Your task to perform on an android device: Clear all items from cart on target.com. Search for "alienware aurora" on target.com, select the first entry, add it to the cart, then select checkout. Image 0: 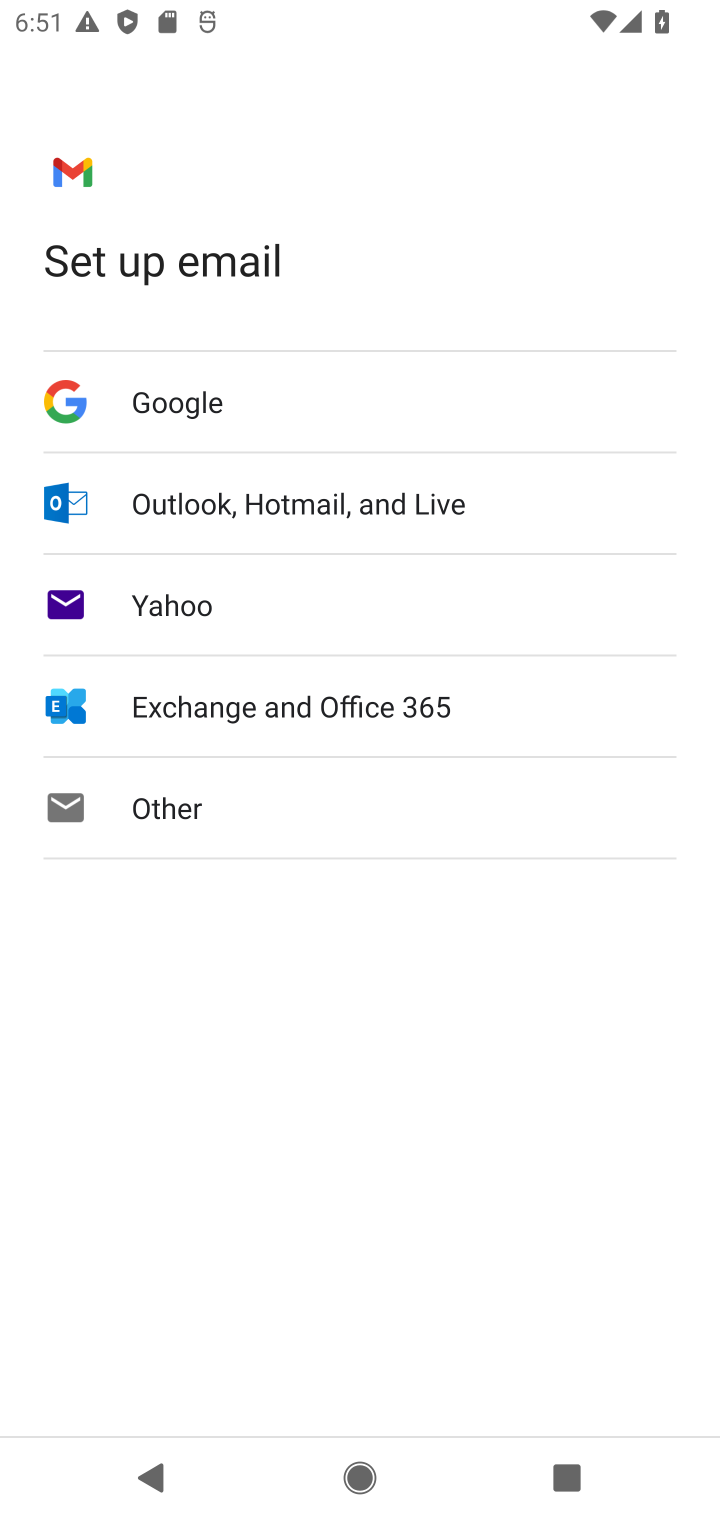
Step 0: press home button
Your task to perform on an android device: Clear all items from cart on target.com. Search for "alienware aurora" on target.com, select the first entry, add it to the cart, then select checkout. Image 1: 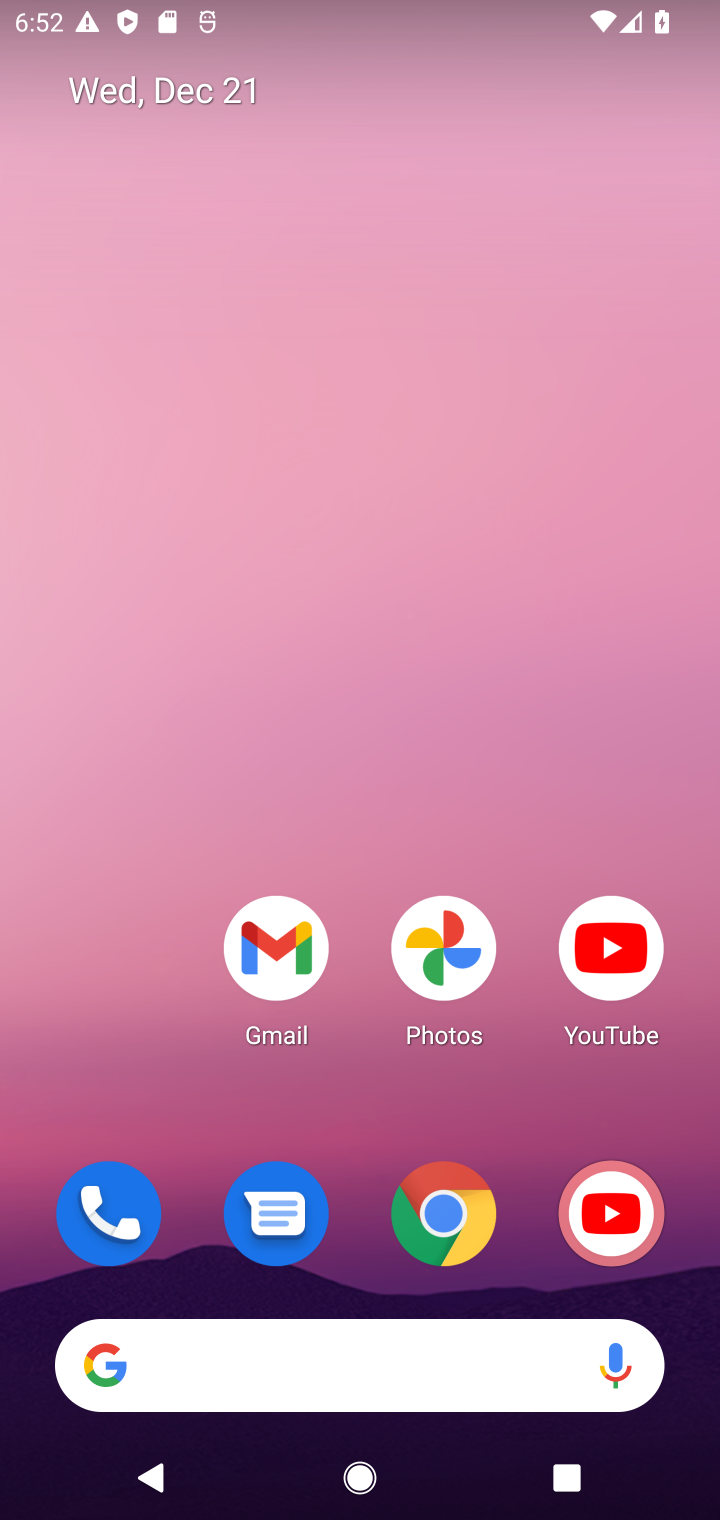
Step 1: click (447, 1242)
Your task to perform on an android device: Clear all items from cart on target.com. Search for "alienware aurora" on target.com, select the first entry, add it to the cart, then select checkout. Image 2: 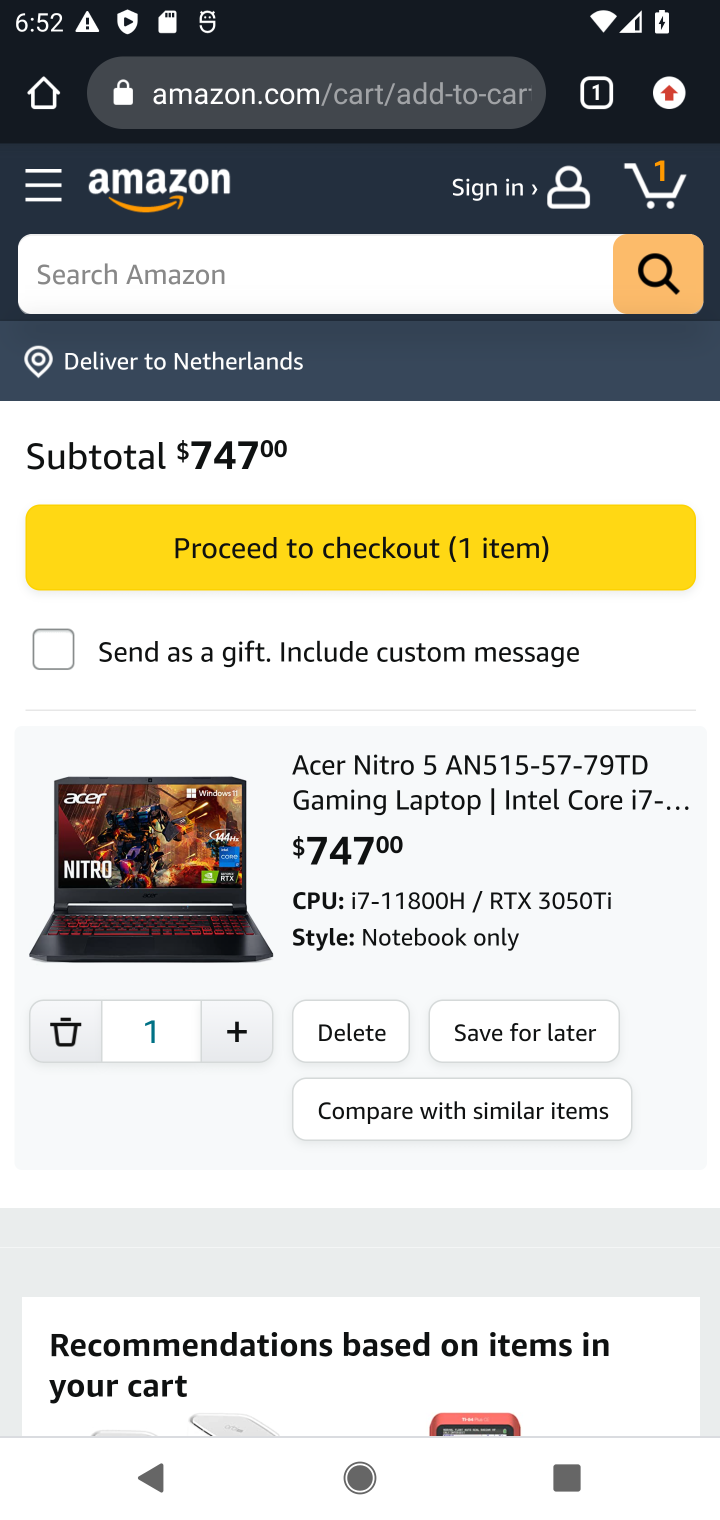
Step 2: click (380, 288)
Your task to perform on an android device: Clear all items from cart on target.com. Search for "alienware aurora" on target.com, select the first entry, add it to the cart, then select checkout. Image 3: 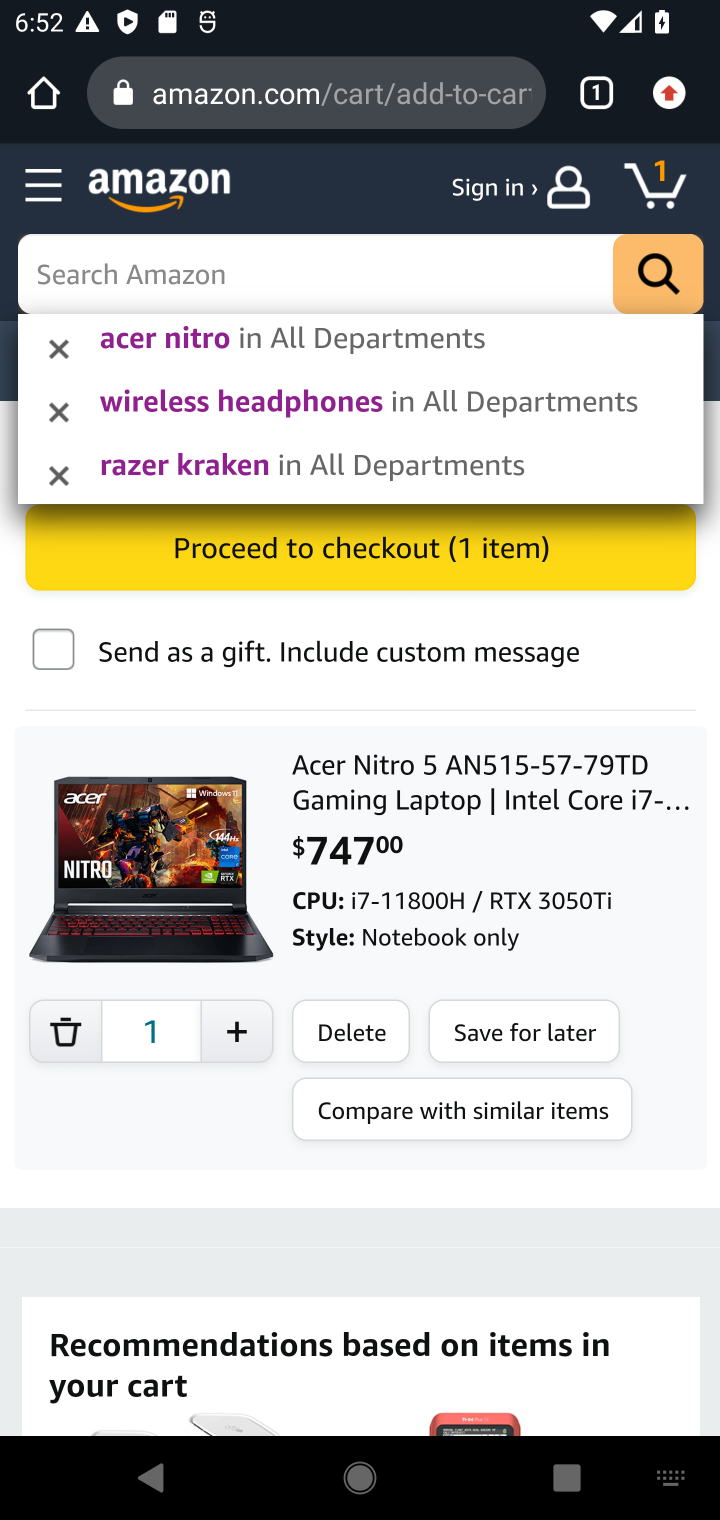
Step 3: type "target"
Your task to perform on an android device: Clear all items from cart on target.com. Search for "alienware aurora" on target.com, select the first entry, add it to the cart, then select checkout. Image 4: 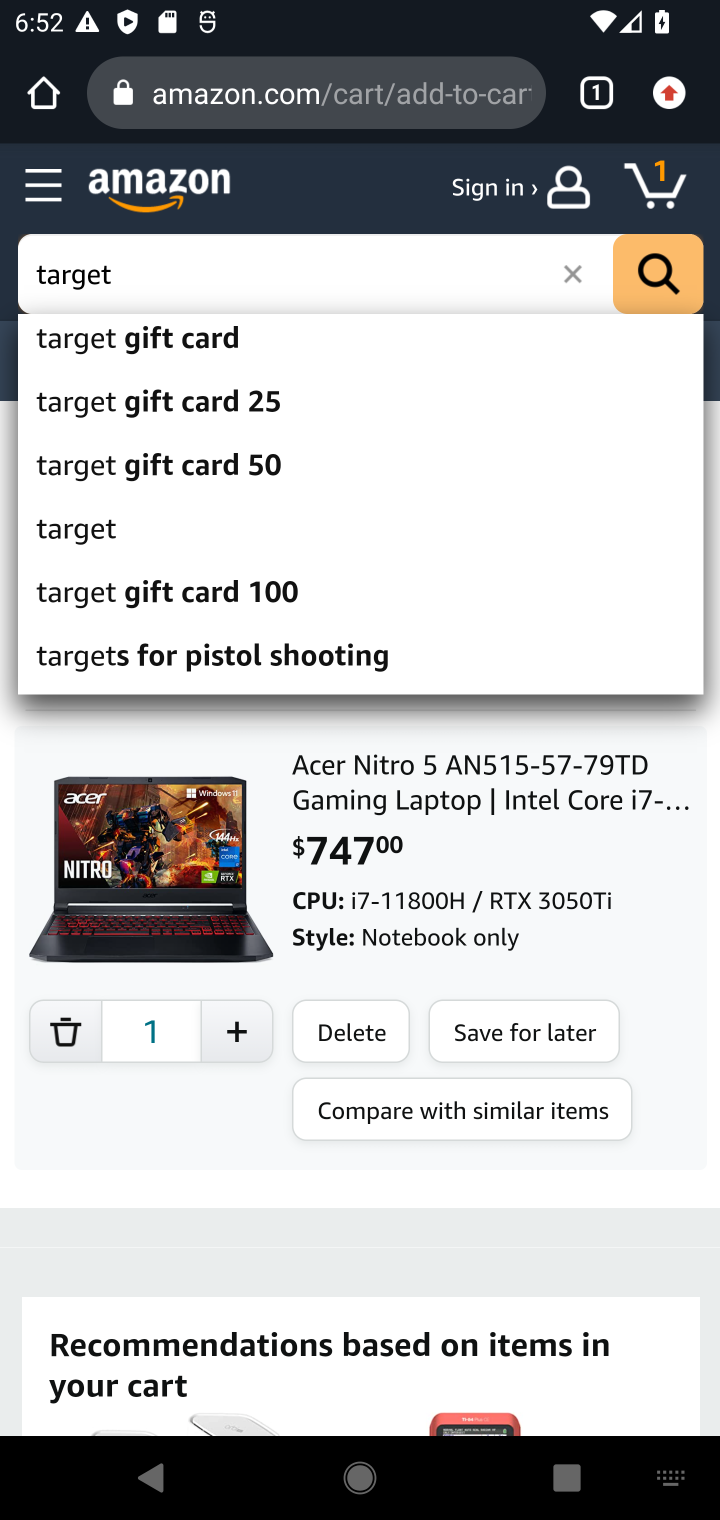
Step 4: click (323, 96)
Your task to perform on an android device: Clear all items from cart on target.com. Search for "alienware aurora" on target.com, select the first entry, add it to the cart, then select checkout. Image 5: 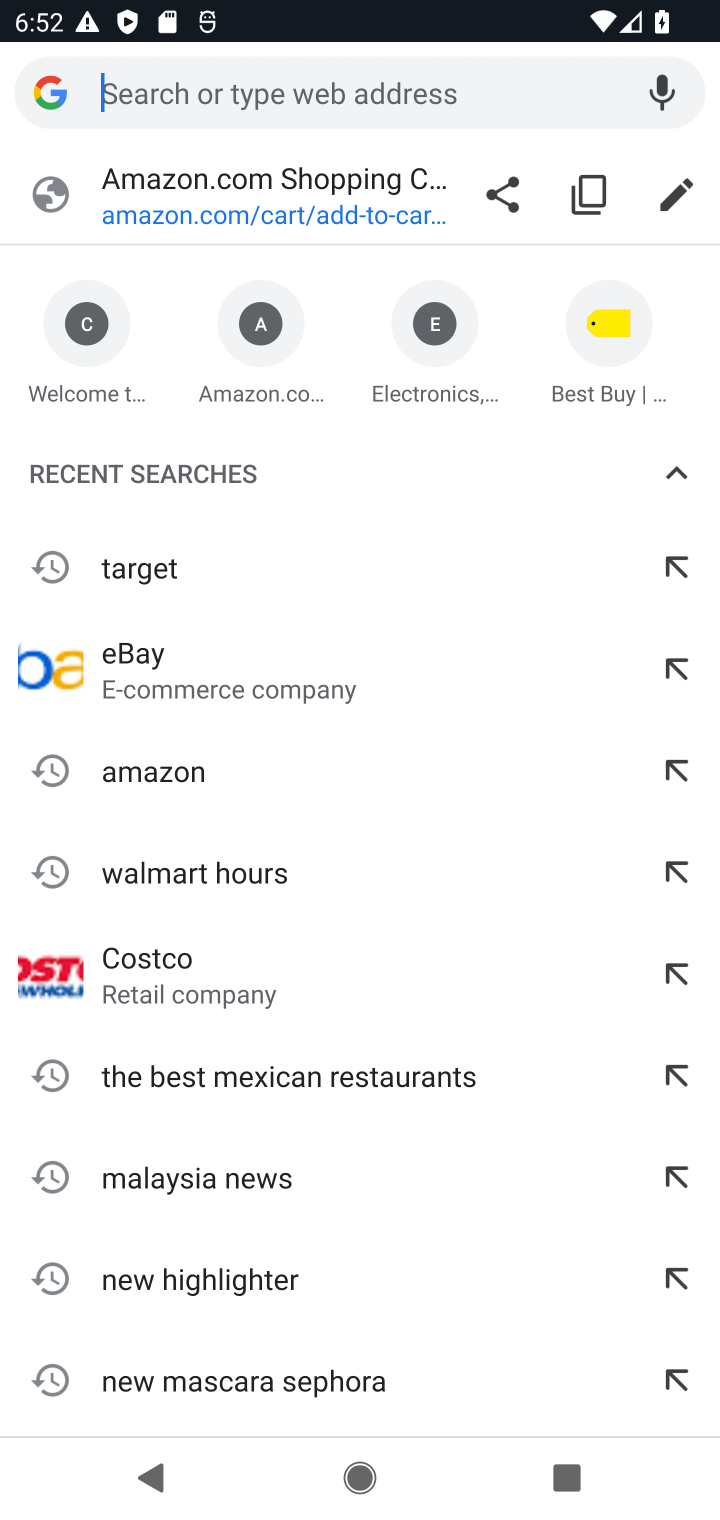
Step 5: type "target"
Your task to perform on an android device: Clear all items from cart on target.com. Search for "alienware aurora" on target.com, select the first entry, add it to the cart, then select checkout. Image 6: 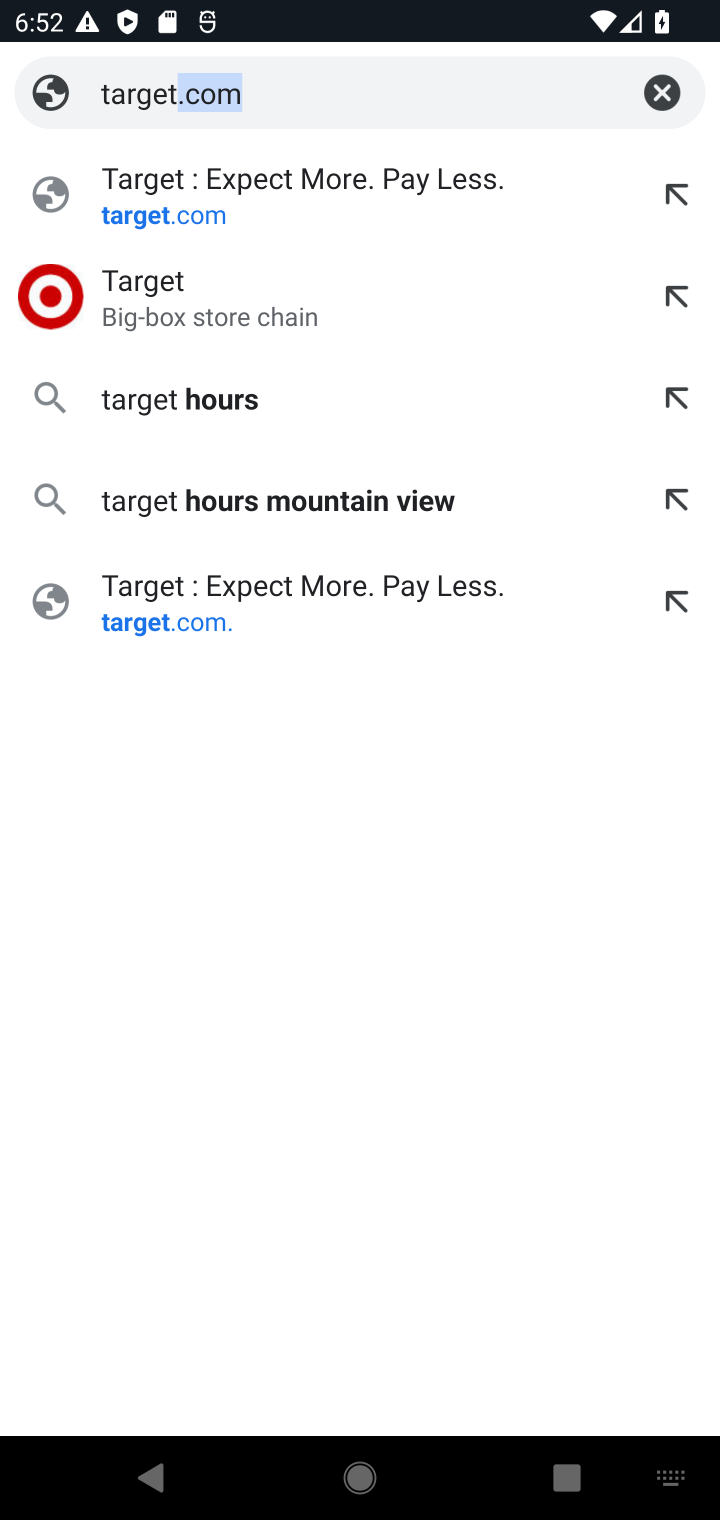
Step 6: type "]"
Your task to perform on an android device: Clear all items from cart on target.com. Search for "alienware aurora" on target.com, select the first entry, add it to the cart, then select checkout. Image 7: 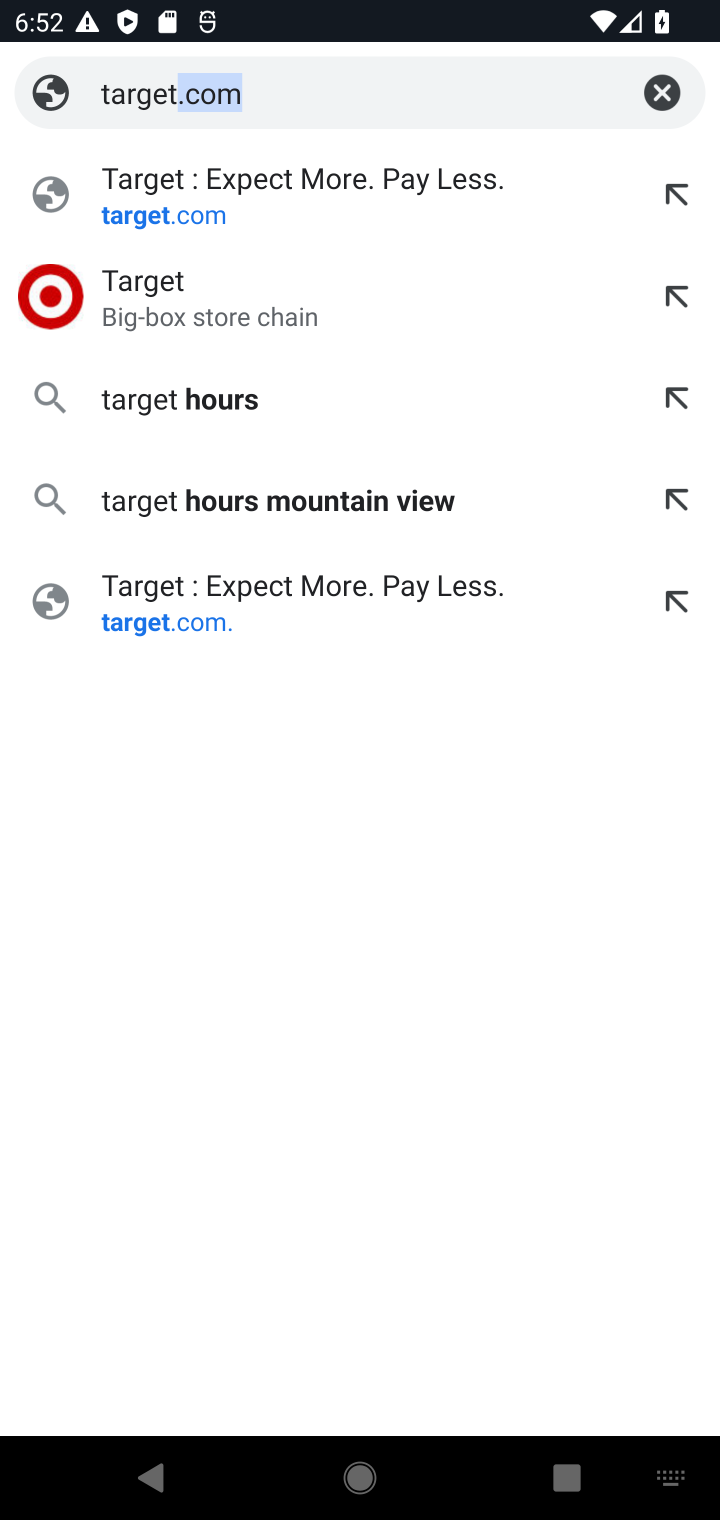
Step 7: click (168, 322)
Your task to perform on an android device: Clear all items from cart on target.com. Search for "alienware aurora" on target.com, select the first entry, add it to the cart, then select checkout. Image 8: 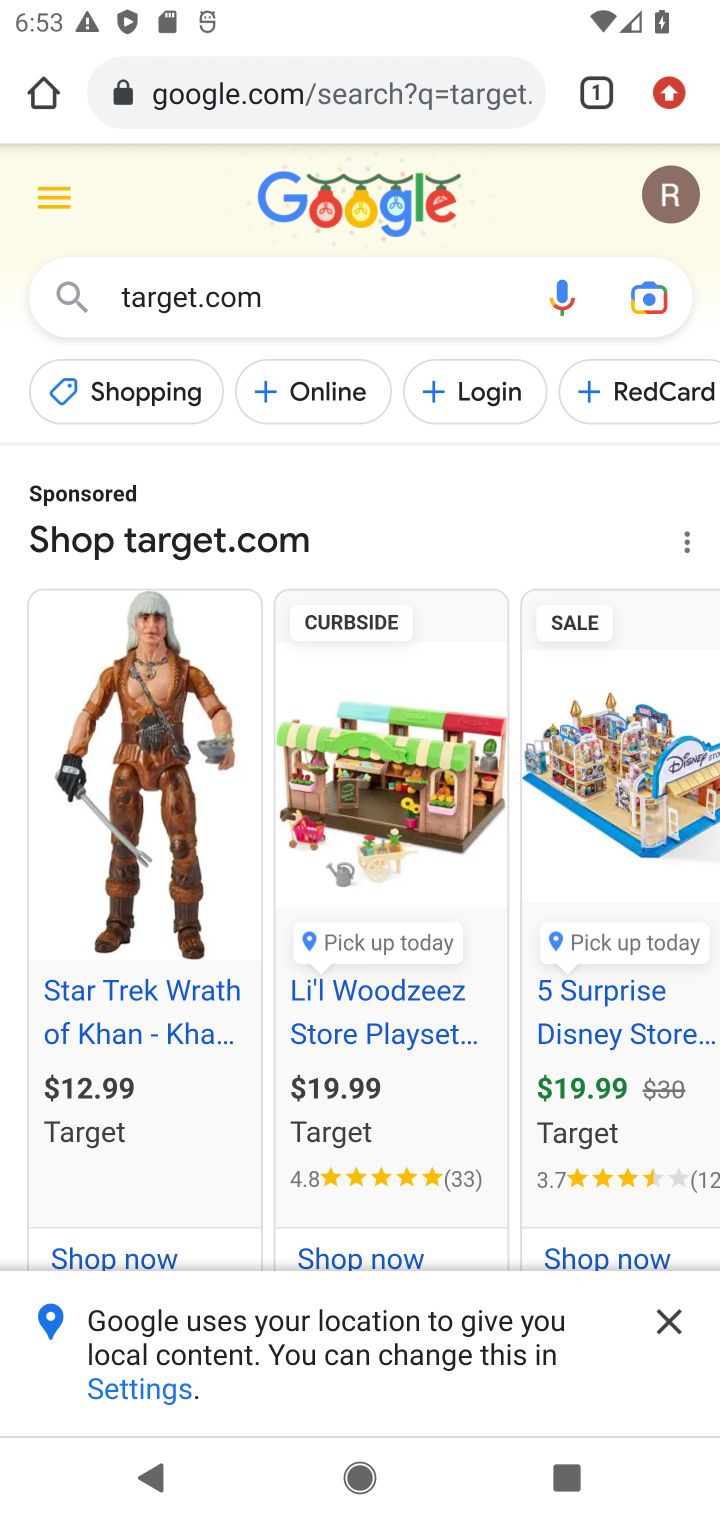
Step 8: click (258, 101)
Your task to perform on an android device: Clear all items from cart on target.com. Search for "alienware aurora" on target.com, select the first entry, add it to the cart, then select checkout. Image 9: 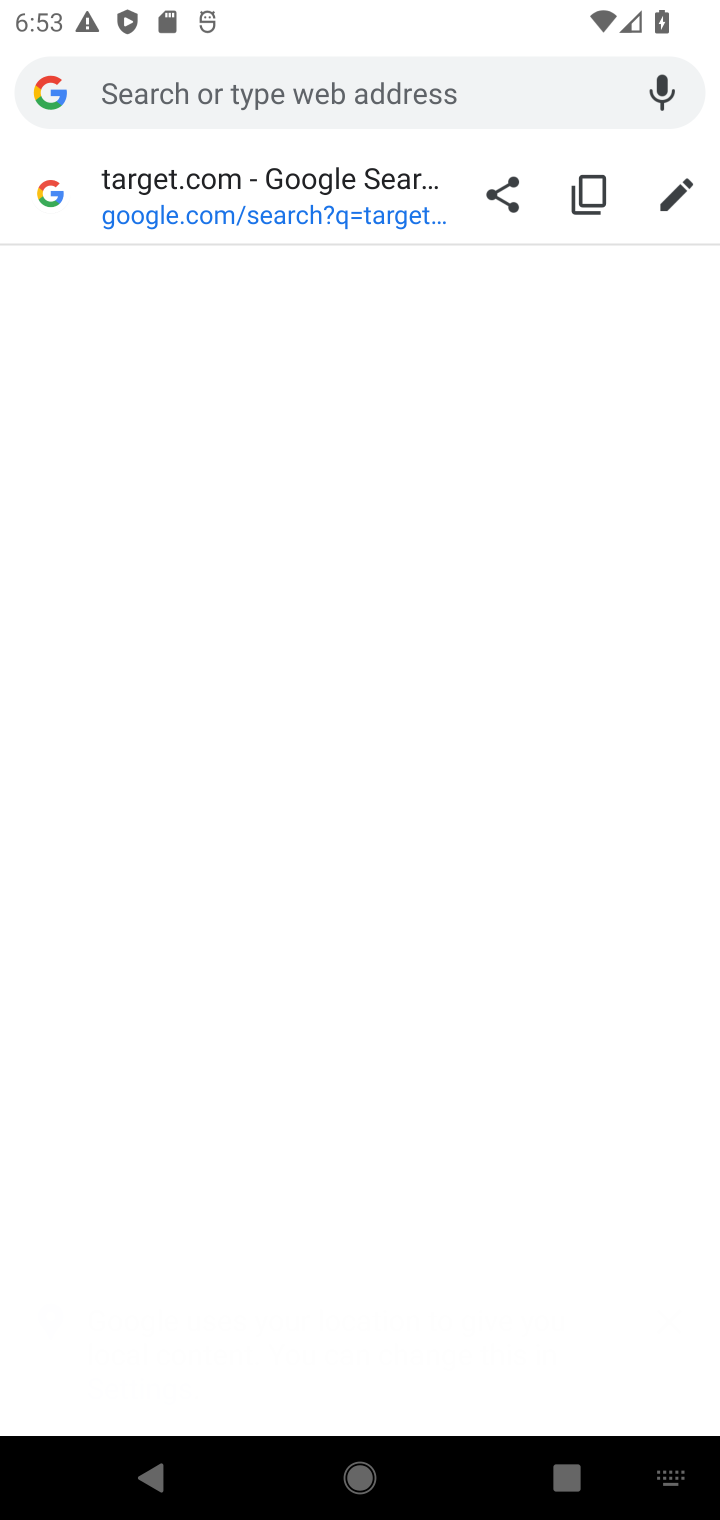
Step 9: click (226, 226)
Your task to perform on an android device: Clear all items from cart on target.com. Search for "alienware aurora" on target.com, select the first entry, add it to the cart, then select checkout. Image 10: 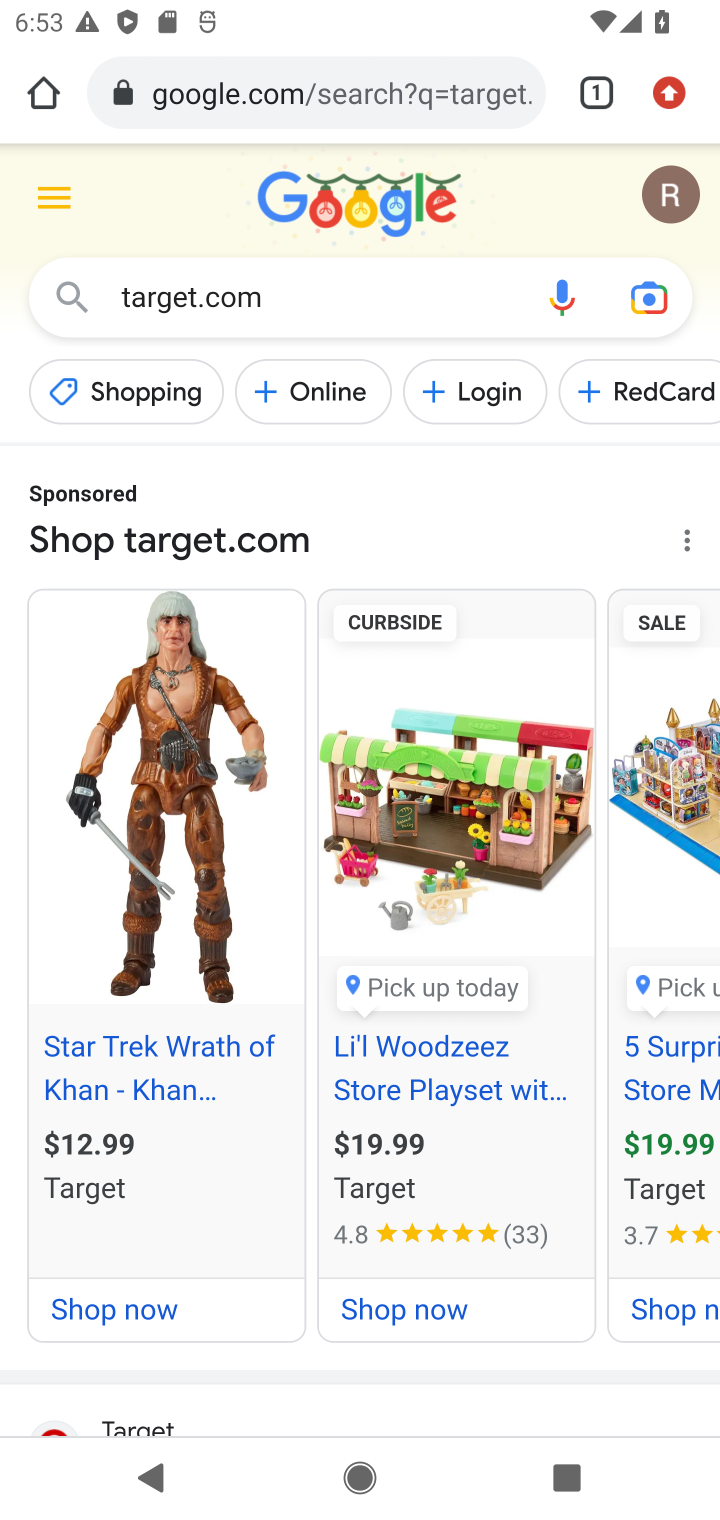
Step 10: click (187, 1096)
Your task to perform on an android device: Clear all items from cart on target.com. Search for "alienware aurora" on target.com, select the first entry, add it to the cart, then select checkout. Image 11: 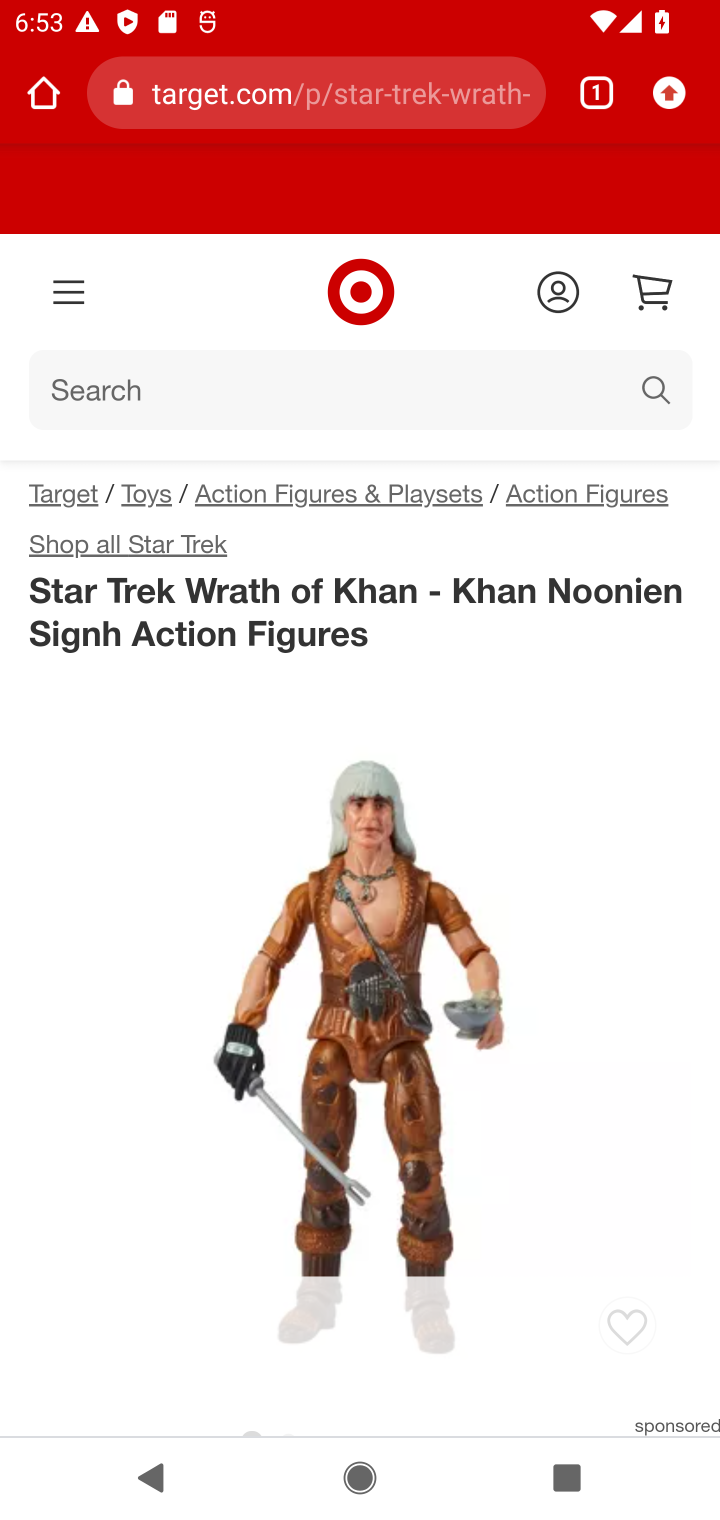
Step 11: click (256, 424)
Your task to perform on an android device: Clear all items from cart on target.com. Search for "alienware aurora" on target.com, select the first entry, add it to the cart, then select checkout. Image 12: 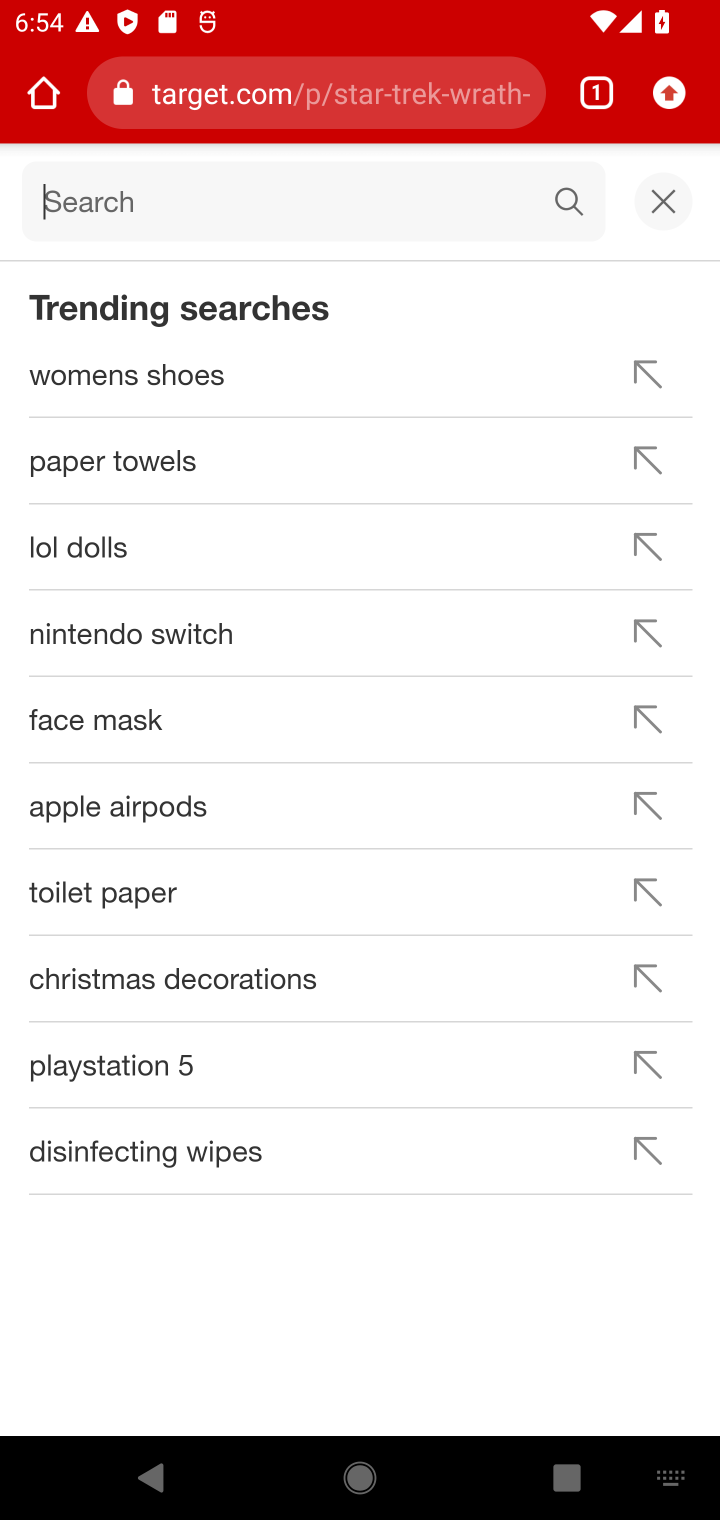
Step 12: type "alienware aurora"
Your task to perform on an android device: Clear all items from cart on target.com. Search for "alienware aurora" on target.com, select the first entry, add it to the cart, then select checkout. Image 13: 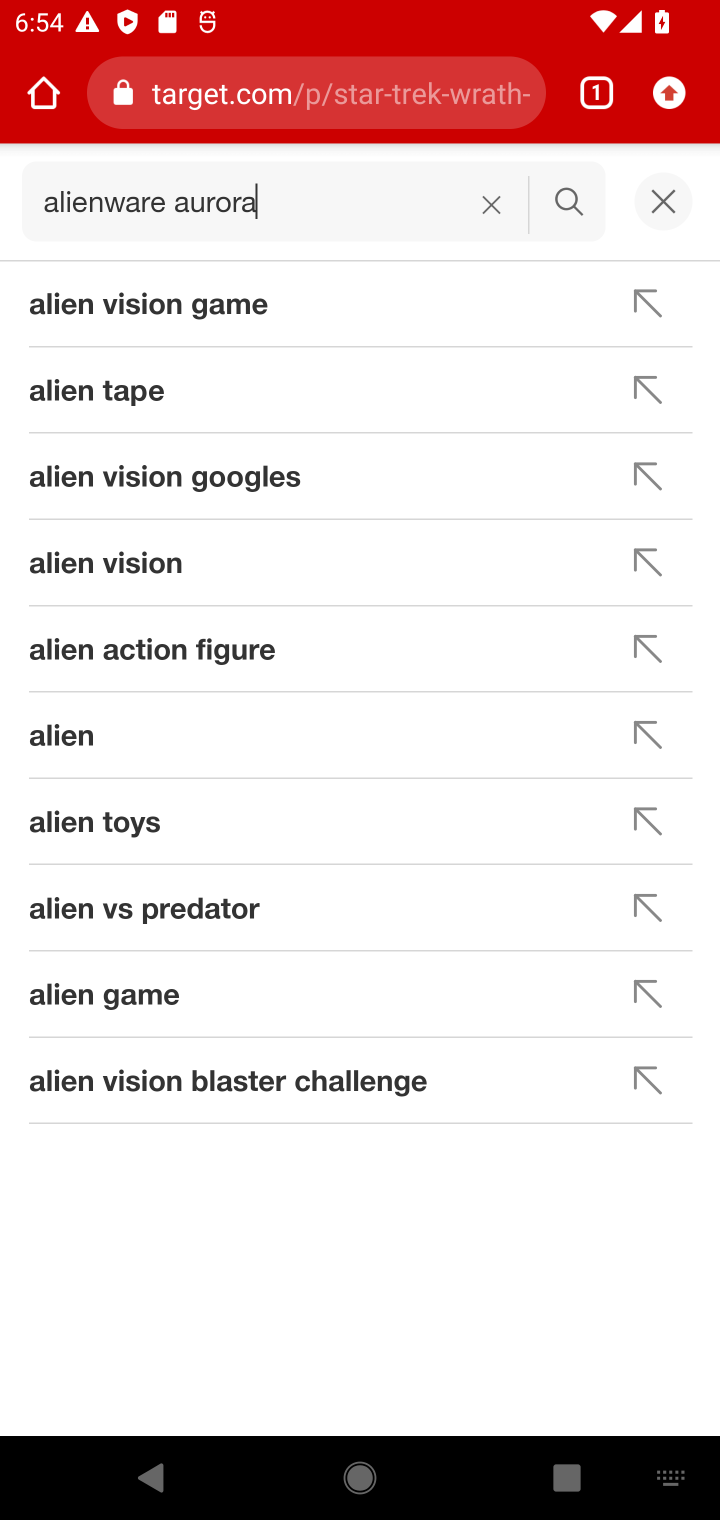
Step 13: click (570, 197)
Your task to perform on an android device: Clear all items from cart on target.com. Search for "alienware aurora" on target.com, select the first entry, add it to the cart, then select checkout. Image 14: 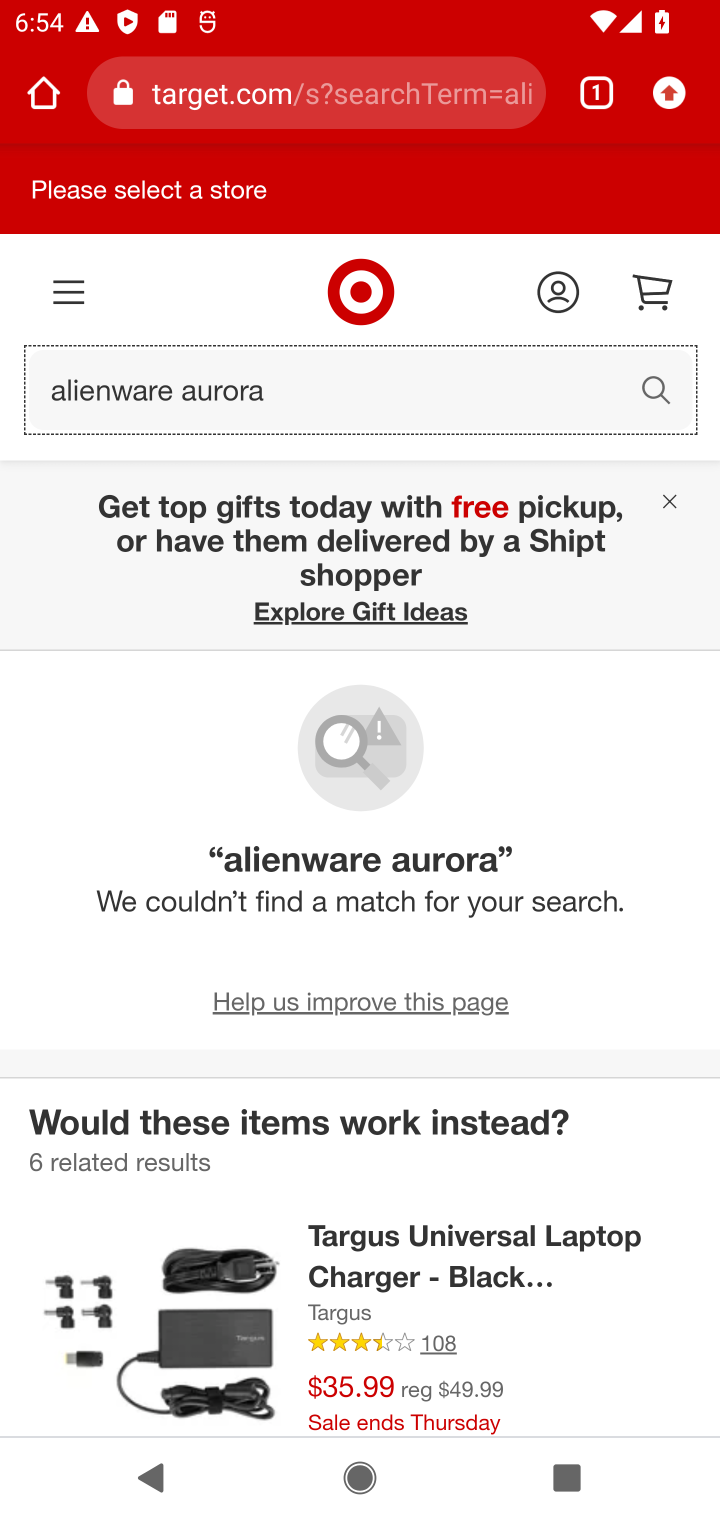
Step 14: click (399, 1288)
Your task to perform on an android device: Clear all items from cart on target.com. Search for "alienware aurora" on target.com, select the first entry, add it to the cart, then select checkout. Image 15: 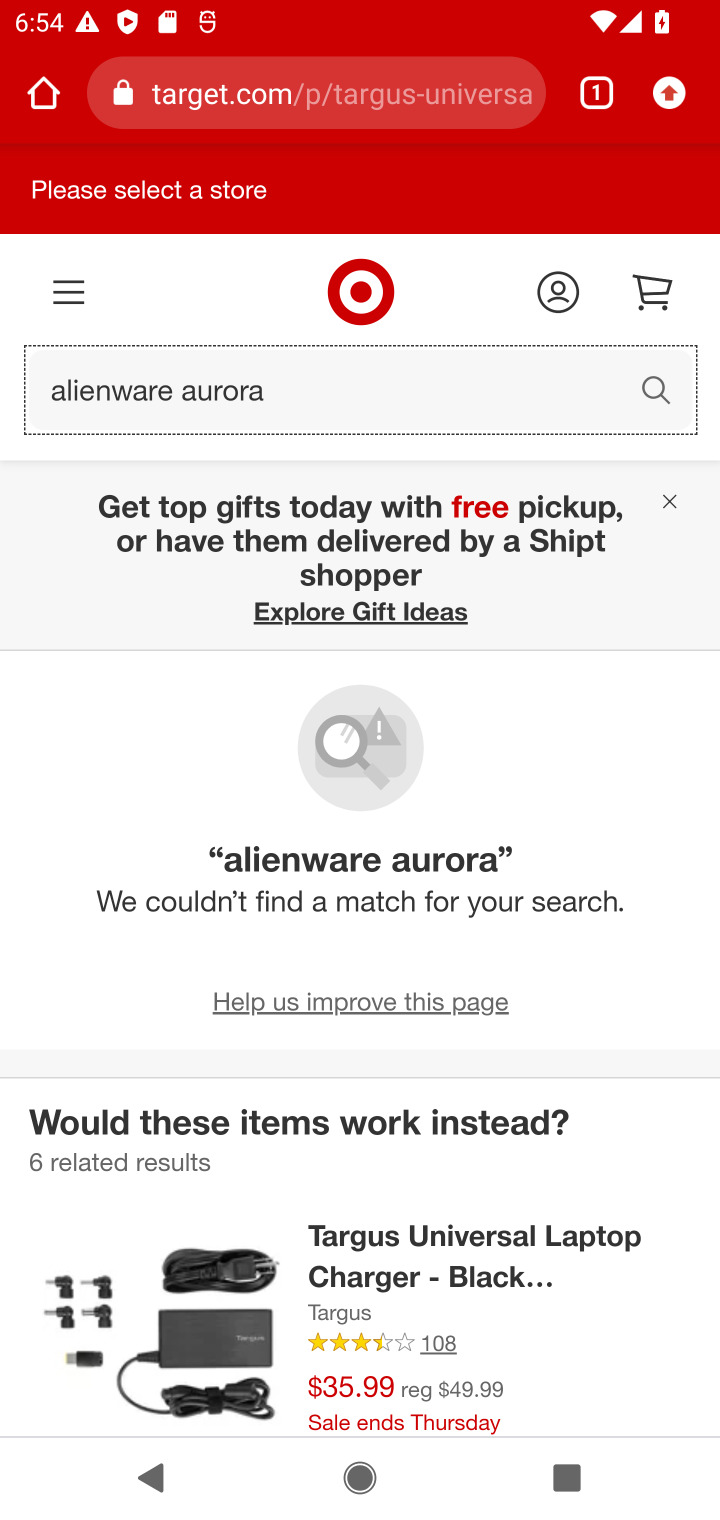
Step 15: task complete